Your task to perform on an android device: change notification settings in the gmail app Image 0: 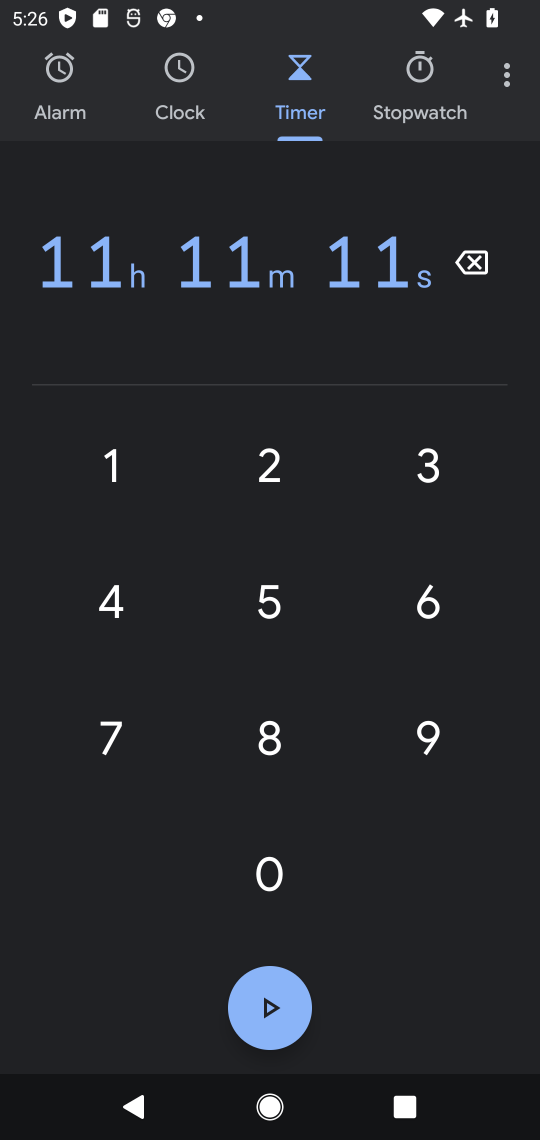
Step 0: press home button
Your task to perform on an android device: change notification settings in the gmail app Image 1: 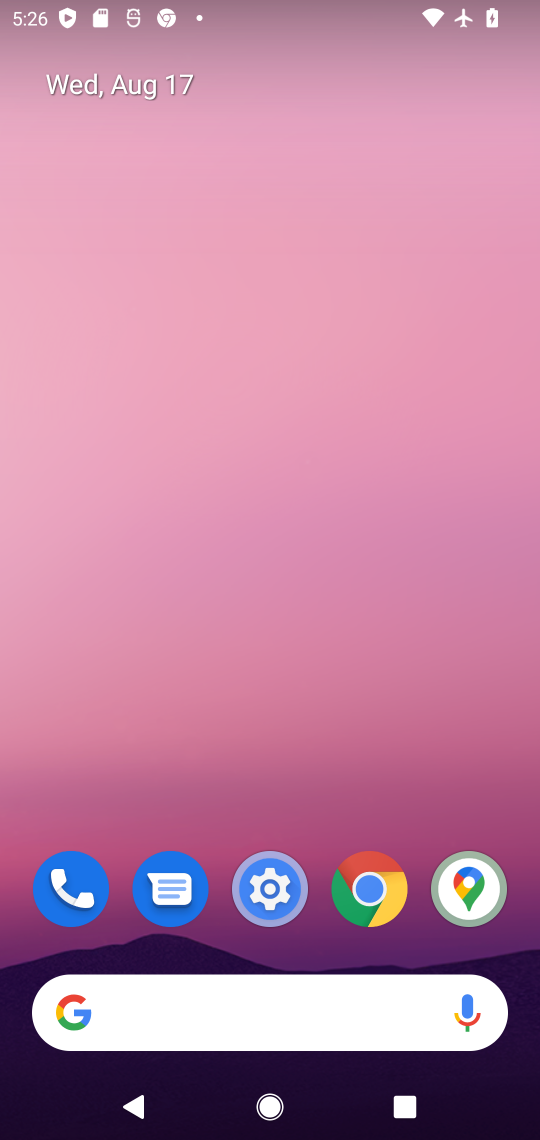
Step 1: drag from (320, 797) to (275, 214)
Your task to perform on an android device: change notification settings in the gmail app Image 2: 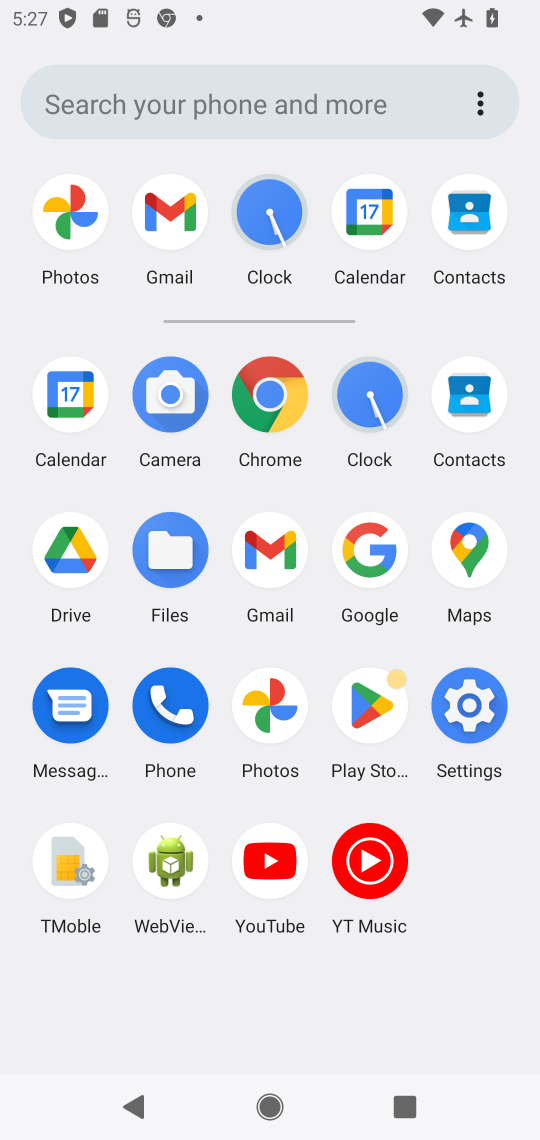
Step 2: click (168, 210)
Your task to perform on an android device: change notification settings in the gmail app Image 3: 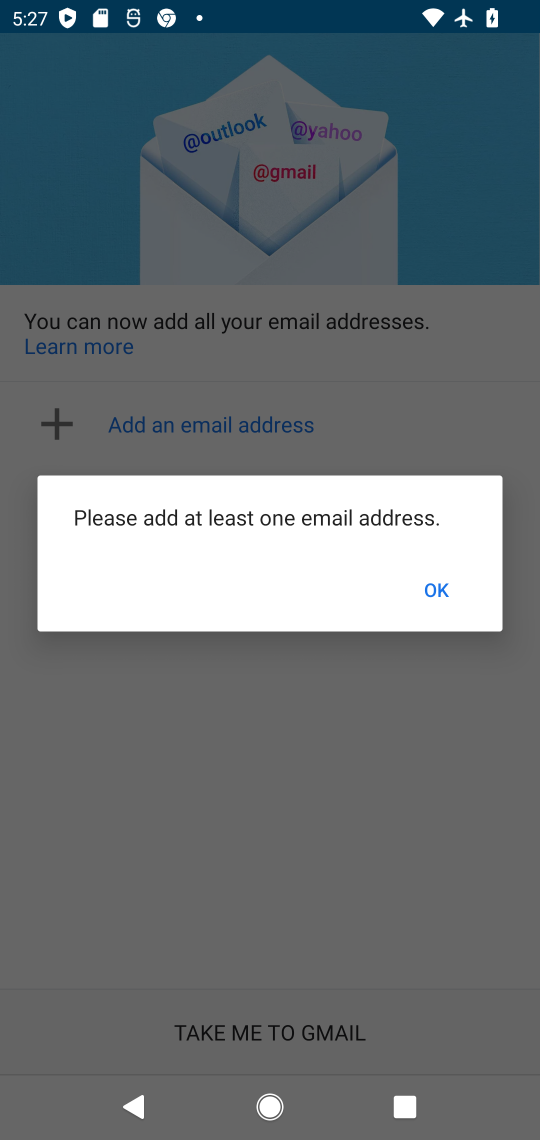
Step 3: click (440, 589)
Your task to perform on an android device: change notification settings in the gmail app Image 4: 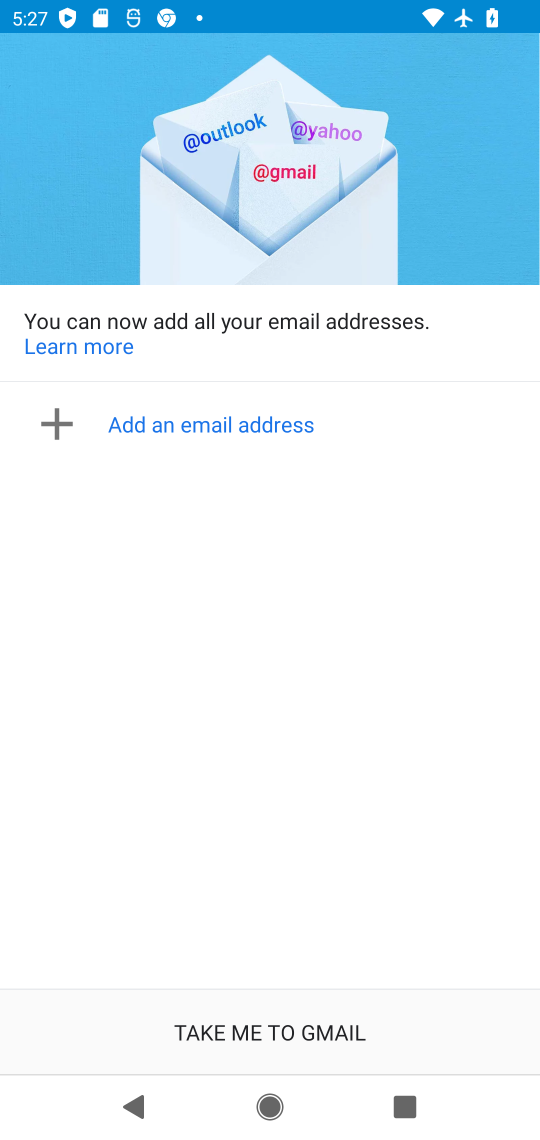
Step 4: click (252, 1021)
Your task to perform on an android device: change notification settings in the gmail app Image 5: 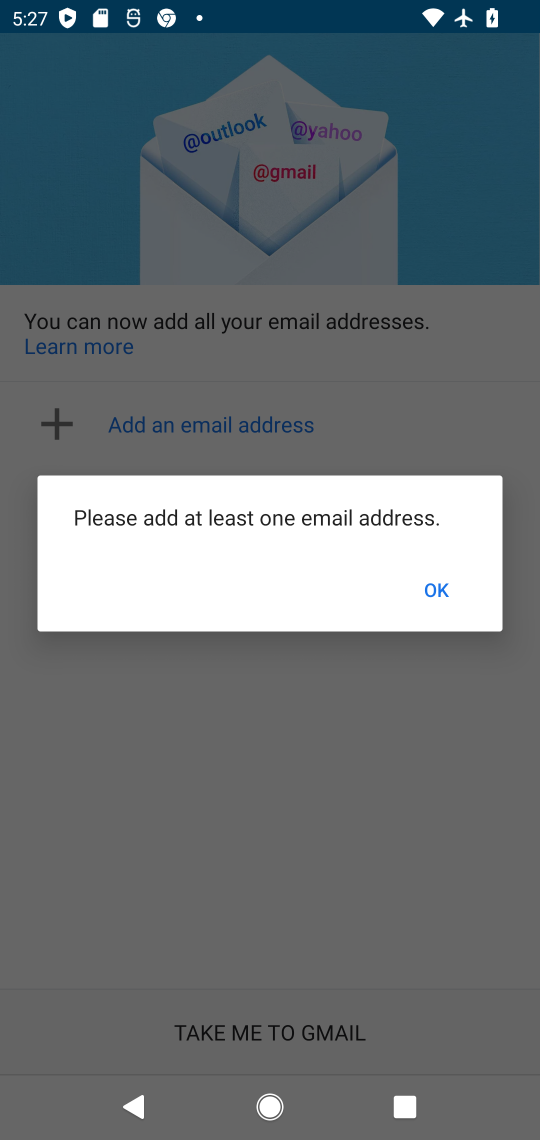
Step 5: task complete